Your task to perform on an android device: change the clock display to show seconds Image 0: 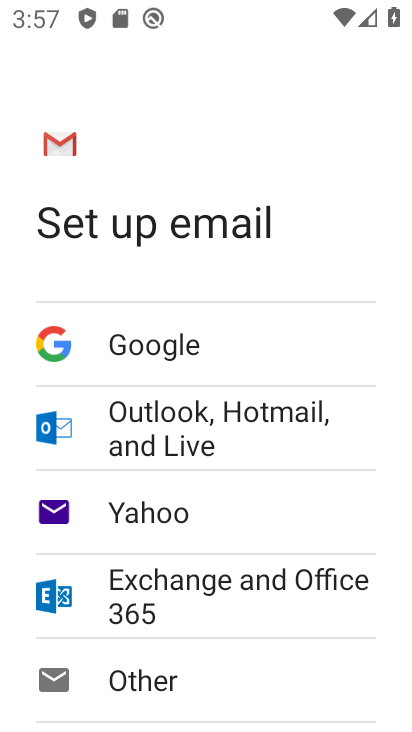
Step 0: press home button
Your task to perform on an android device: change the clock display to show seconds Image 1: 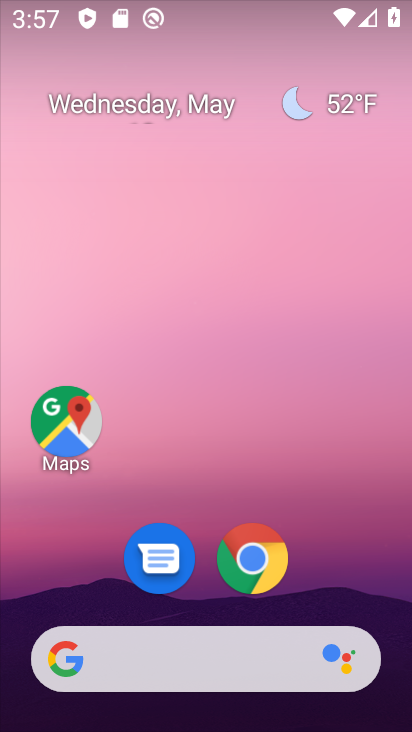
Step 1: drag from (332, 572) to (390, 171)
Your task to perform on an android device: change the clock display to show seconds Image 2: 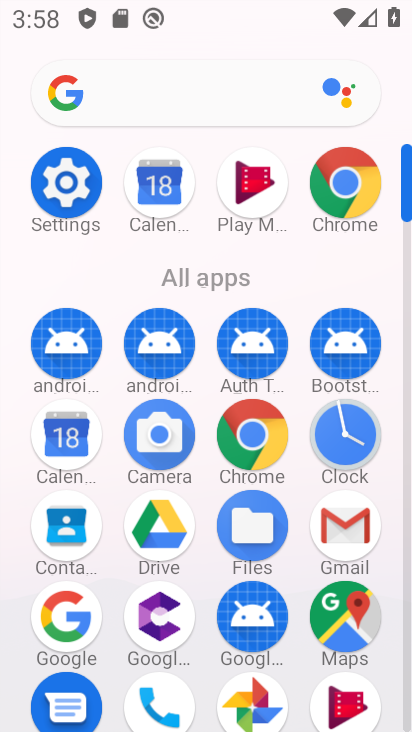
Step 2: click (364, 449)
Your task to perform on an android device: change the clock display to show seconds Image 3: 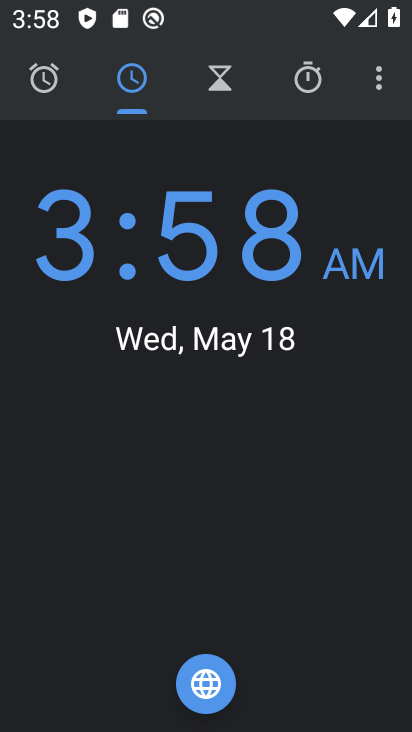
Step 3: click (378, 81)
Your task to perform on an android device: change the clock display to show seconds Image 4: 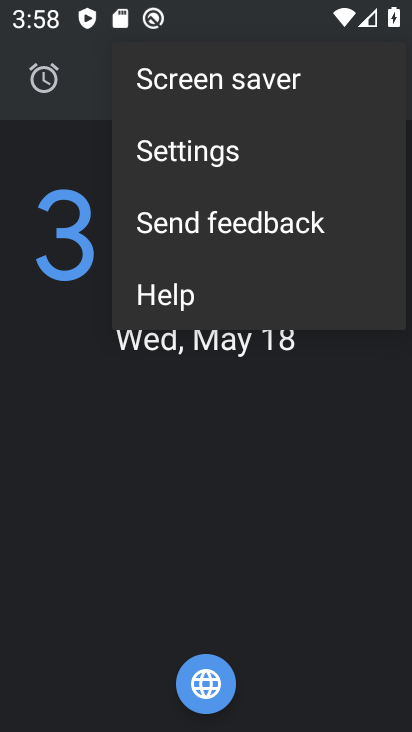
Step 4: click (318, 149)
Your task to perform on an android device: change the clock display to show seconds Image 5: 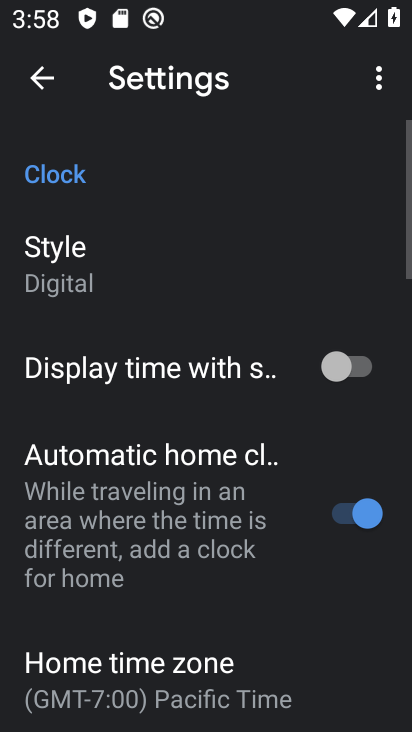
Step 5: click (366, 365)
Your task to perform on an android device: change the clock display to show seconds Image 6: 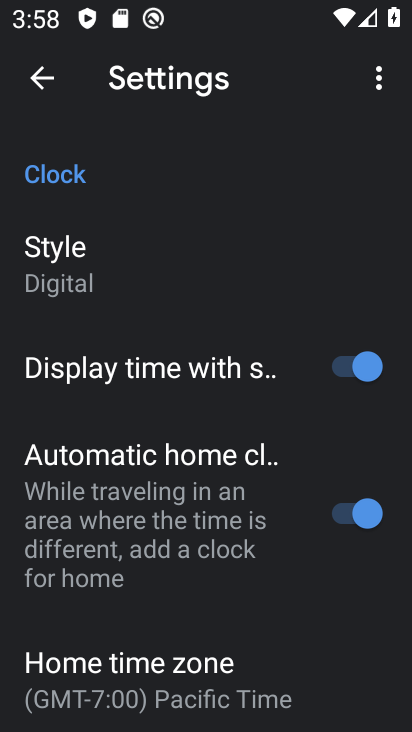
Step 6: task complete